Your task to perform on an android device: show emergency info Image 0: 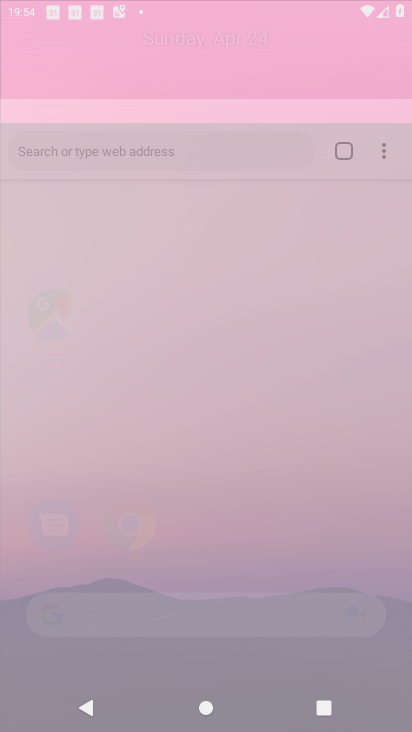
Step 0: drag from (278, 640) to (208, 309)
Your task to perform on an android device: show emergency info Image 1: 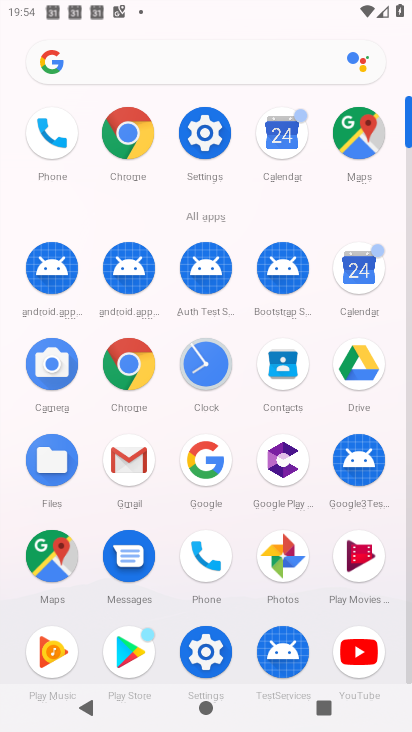
Step 1: click (182, 259)
Your task to perform on an android device: show emergency info Image 2: 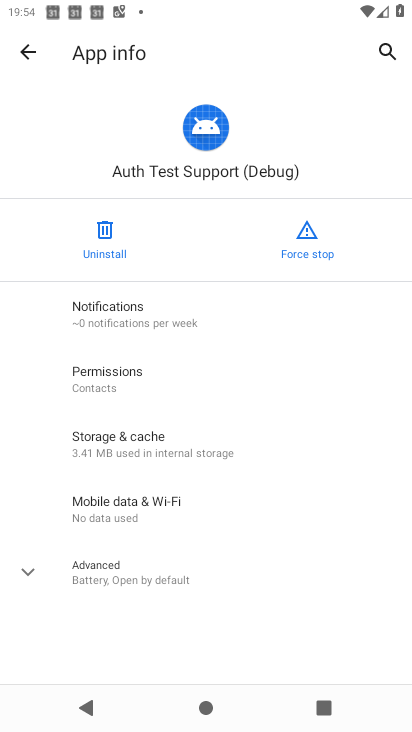
Step 2: click (206, 144)
Your task to perform on an android device: show emergency info Image 3: 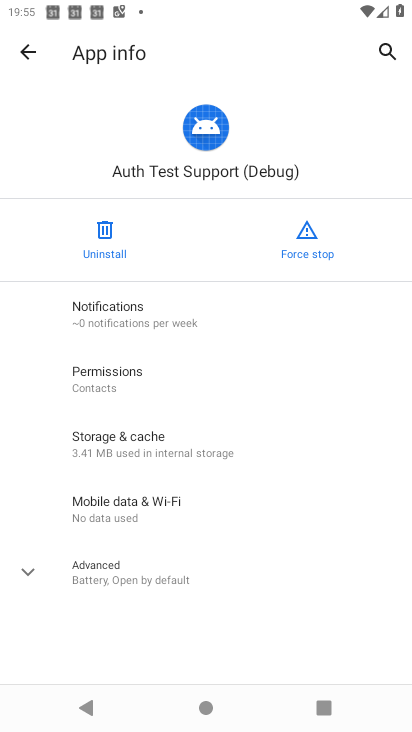
Step 3: click (25, 43)
Your task to perform on an android device: show emergency info Image 4: 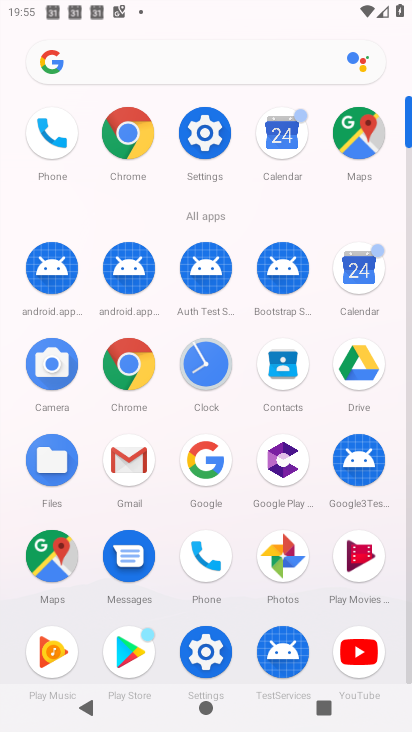
Step 4: click (208, 653)
Your task to perform on an android device: show emergency info Image 5: 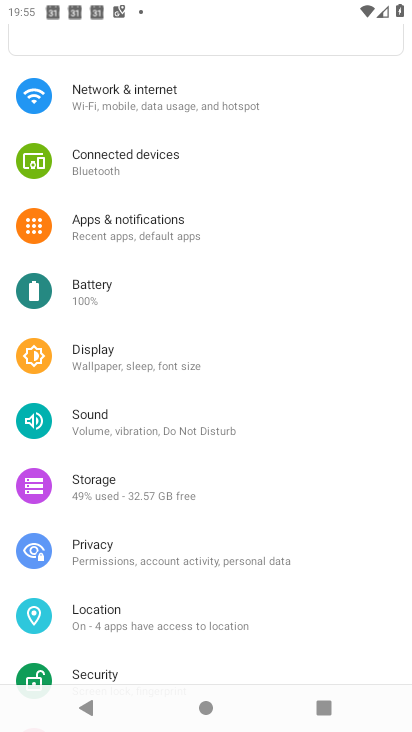
Step 5: drag from (108, 140) to (127, 345)
Your task to perform on an android device: show emergency info Image 6: 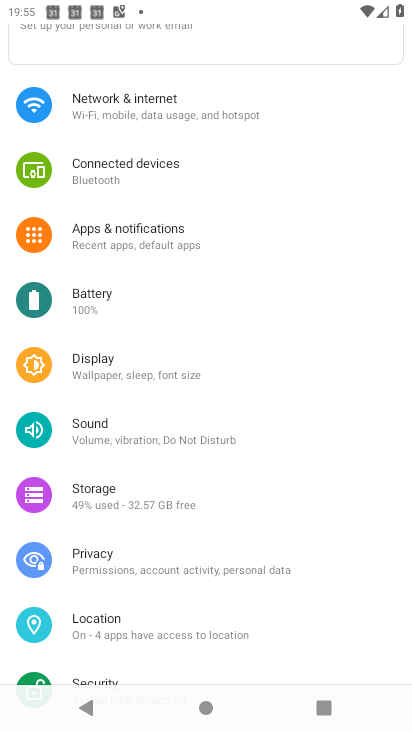
Step 6: drag from (167, 148) to (165, 330)
Your task to perform on an android device: show emergency info Image 7: 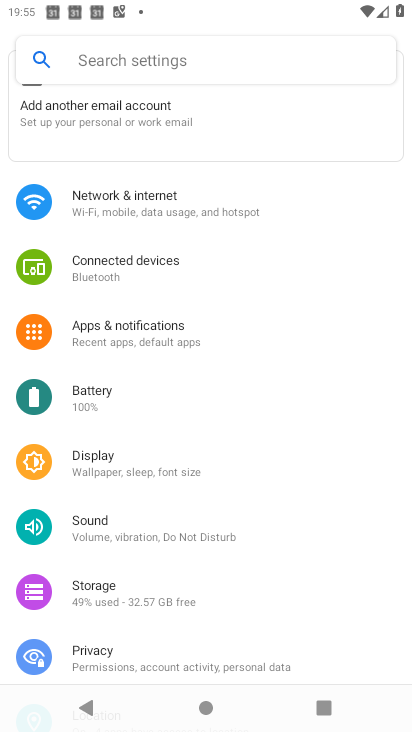
Step 7: click (169, 75)
Your task to perform on an android device: show emergency info Image 8: 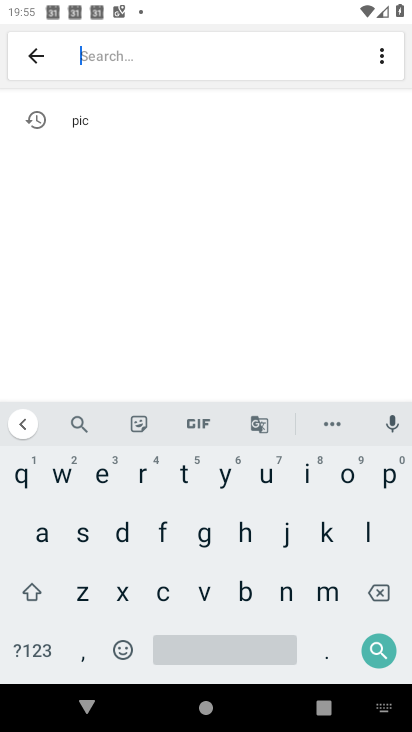
Step 8: click (97, 470)
Your task to perform on an android device: show emergency info Image 9: 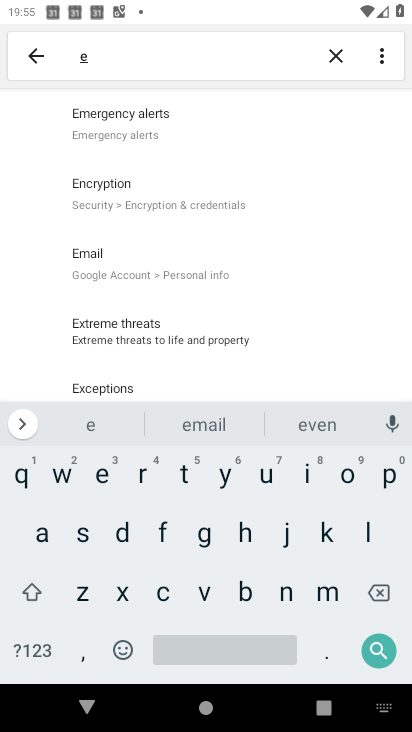
Step 9: click (328, 584)
Your task to perform on an android device: show emergency info Image 10: 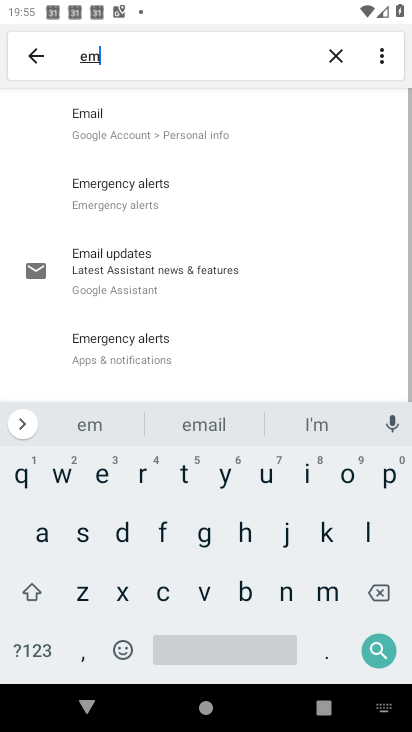
Step 10: drag from (196, 347) to (212, 211)
Your task to perform on an android device: show emergency info Image 11: 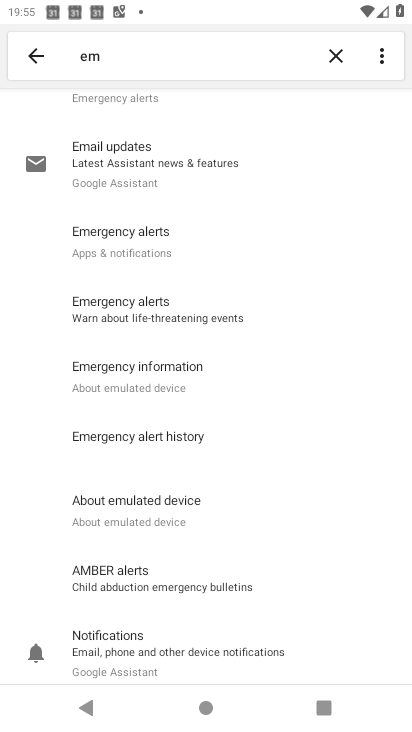
Step 11: click (186, 369)
Your task to perform on an android device: show emergency info Image 12: 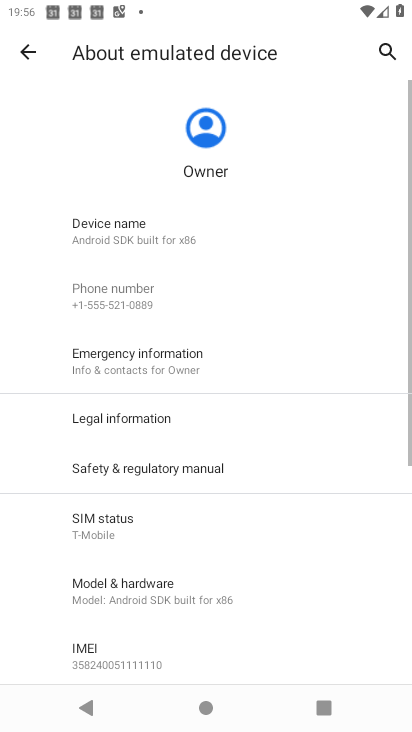
Step 12: click (184, 370)
Your task to perform on an android device: show emergency info Image 13: 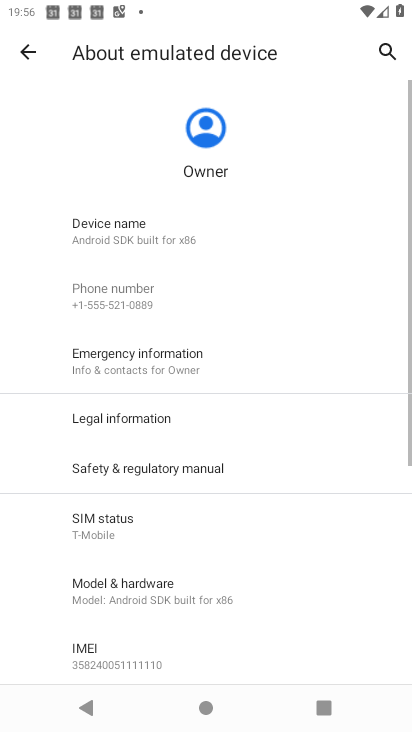
Step 13: task complete